Your task to perform on an android device: Open notification settings Image 0: 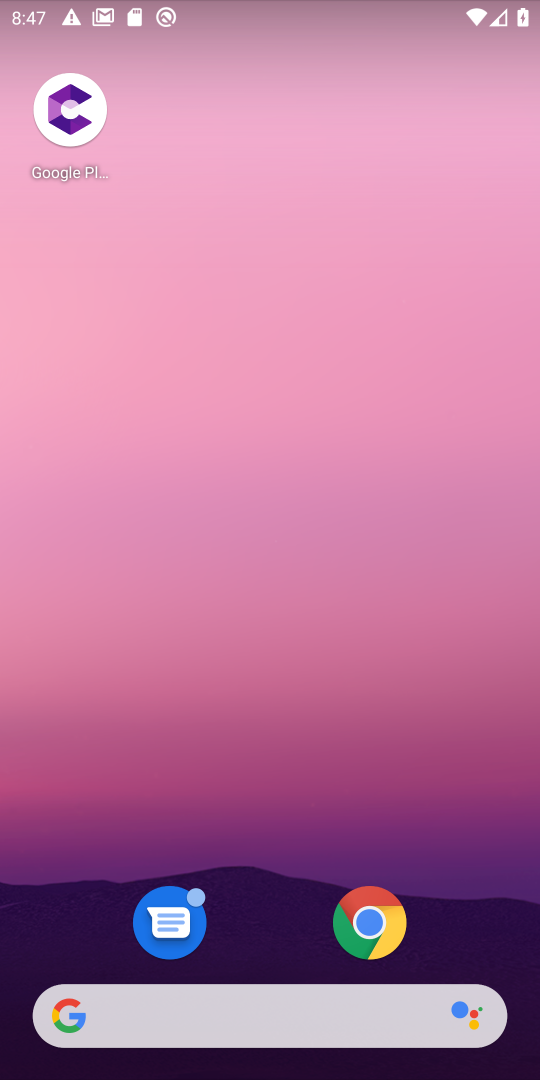
Step 0: drag from (265, 958) to (266, 379)
Your task to perform on an android device: Open notification settings Image 1: 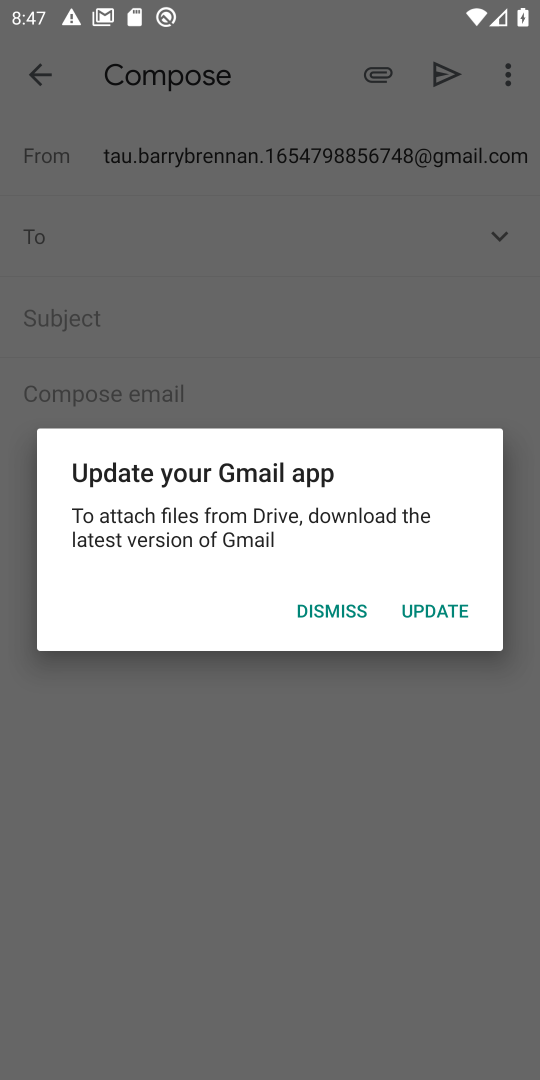
Step 1: press home button
Your task to perform on an android device: Open notification settings Image 2: 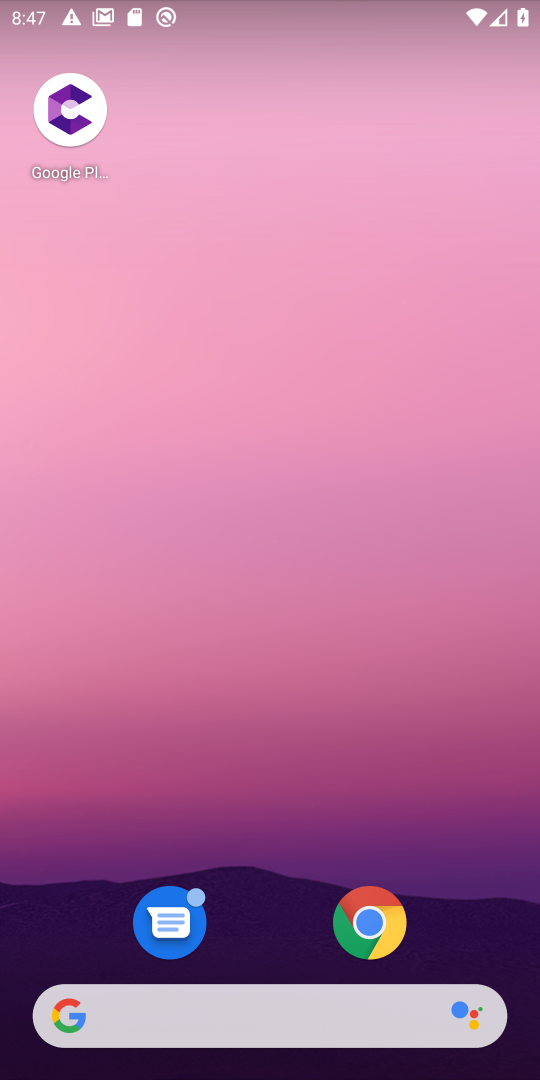
Step 2: drag from (268, 948) to (305, 163)
Your task to perform on an android device: Open notification settings Image 3: 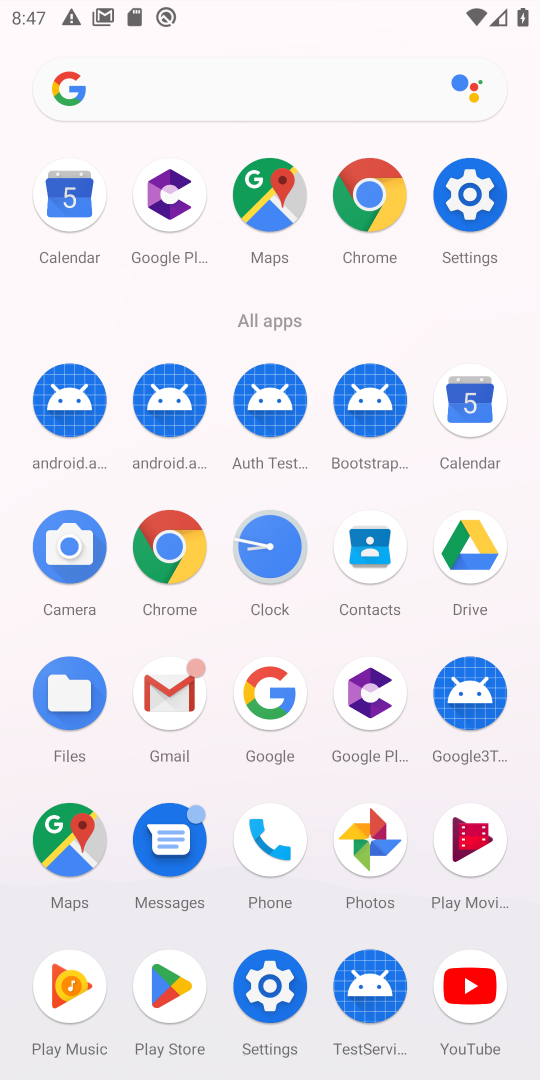
Step 3: click (473, 205)
Your task to perform on an android device: Open notification settings Image 4: 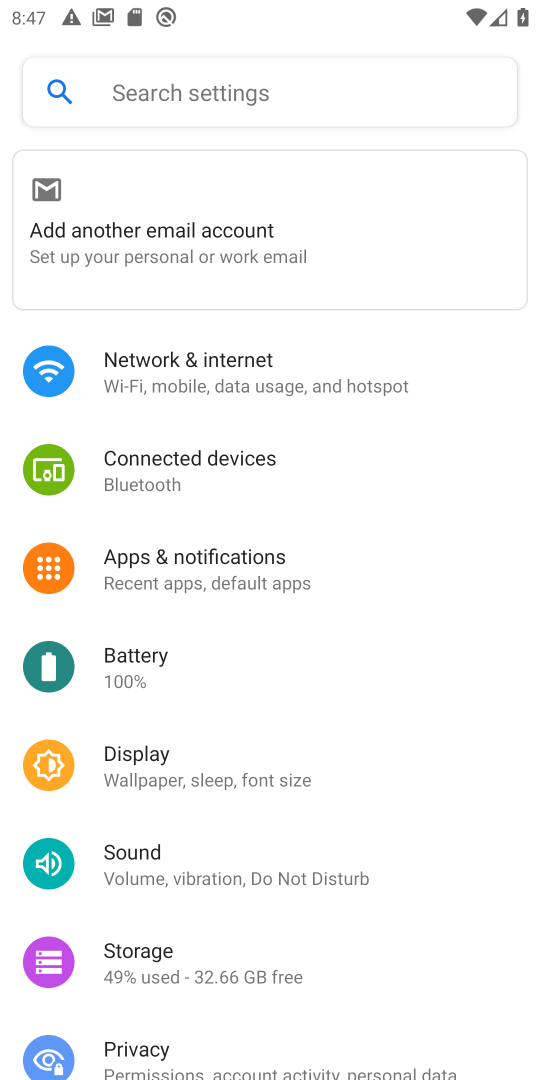
Step 4: click (269, 567)
Your task to perform on an android device: Open notification settings Image 5: 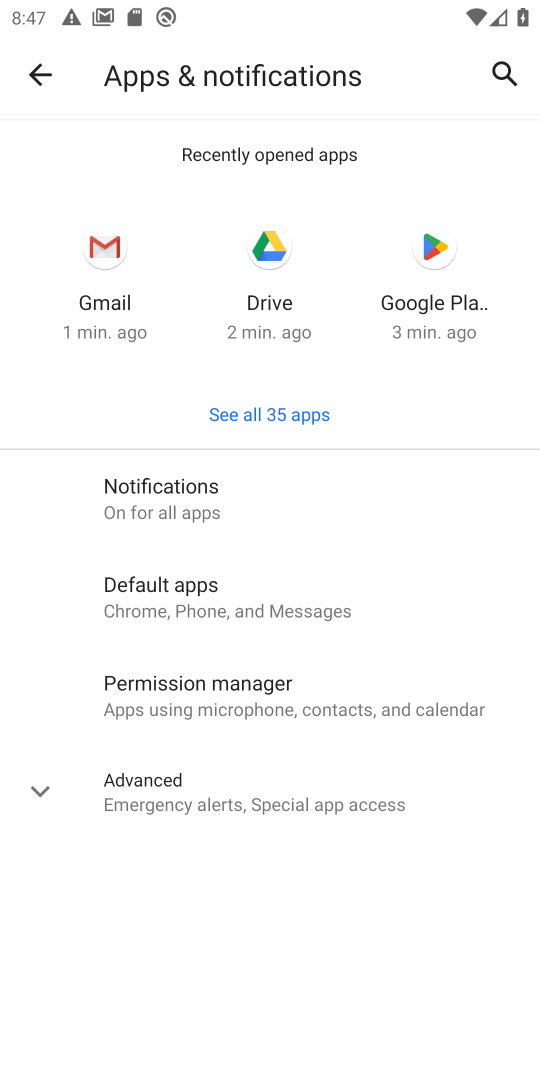
Step 5: click (275, 524)
Your task to perform on an android device: Open notification settings Image 6: 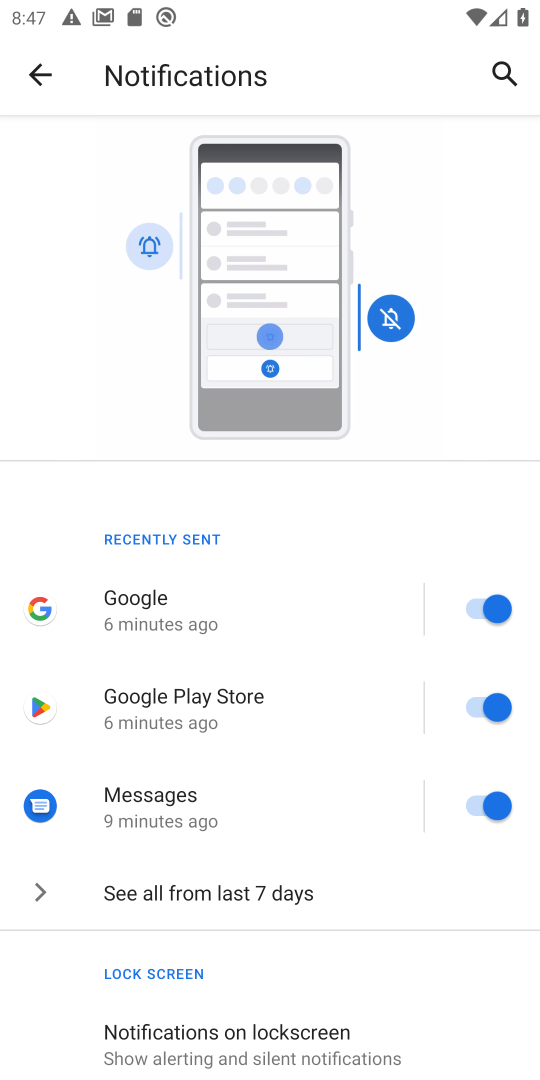
Step 6: task complete